Your task to perform on an android device: Search for lg ultragear on amazon.com, select the first entry, add it to the cart, then select checkout. Image 0: 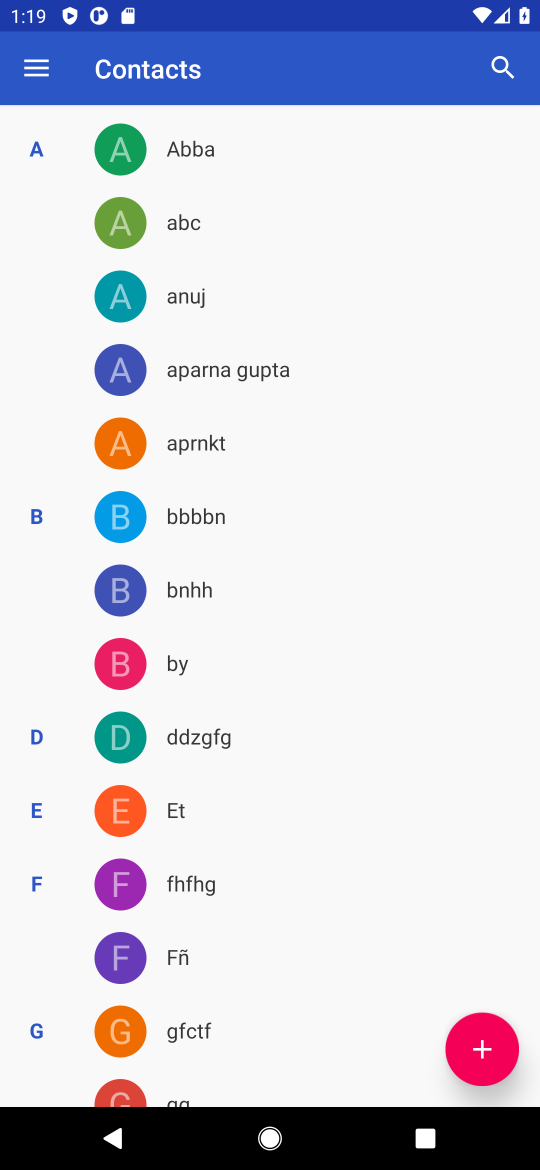
Step 0: press home button
Your task to perform on an android device: Search for lg ultragear on amazon.com, select the first entry, add it to the cart, then select checkout. Image 1: 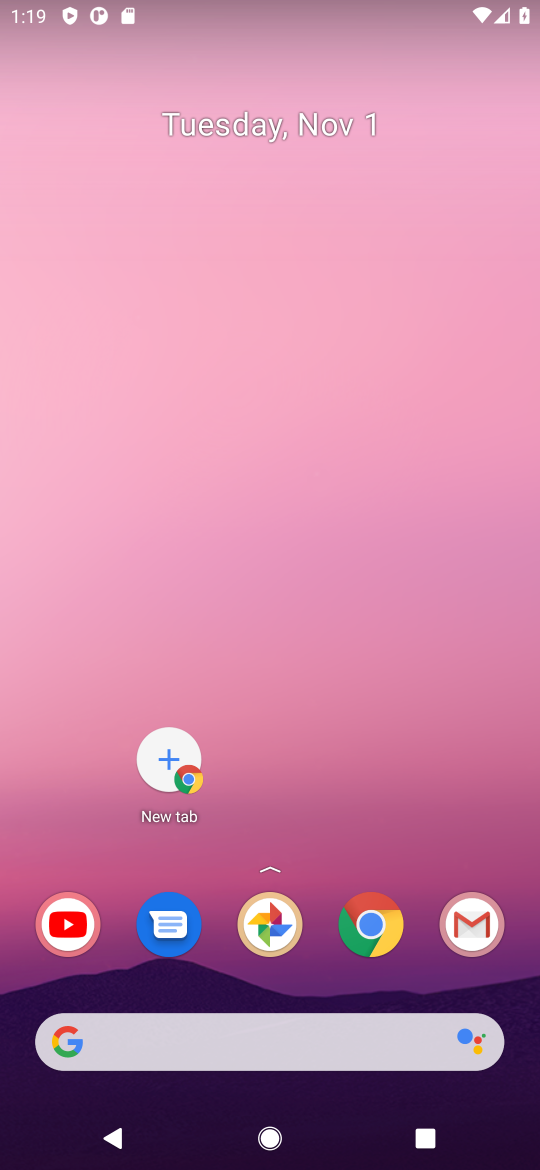
Step 1: click (377, 937)
Your task to perform on an android device: Search for lg ultragear on amazon.com, select the first entry, add it to the cart, then select checkout. Image 2: 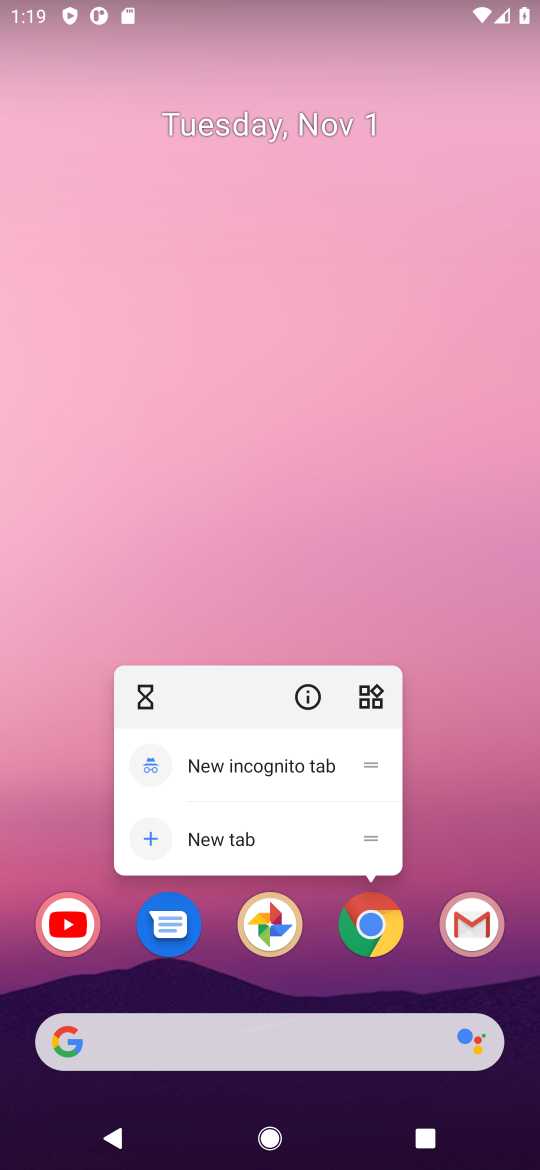
Step 2: click (370, 921)
Your task to perform on an android device: Search for lg ultragear on amazon.com, select the first entry, add it to the cart, then select checkout. Image 3: 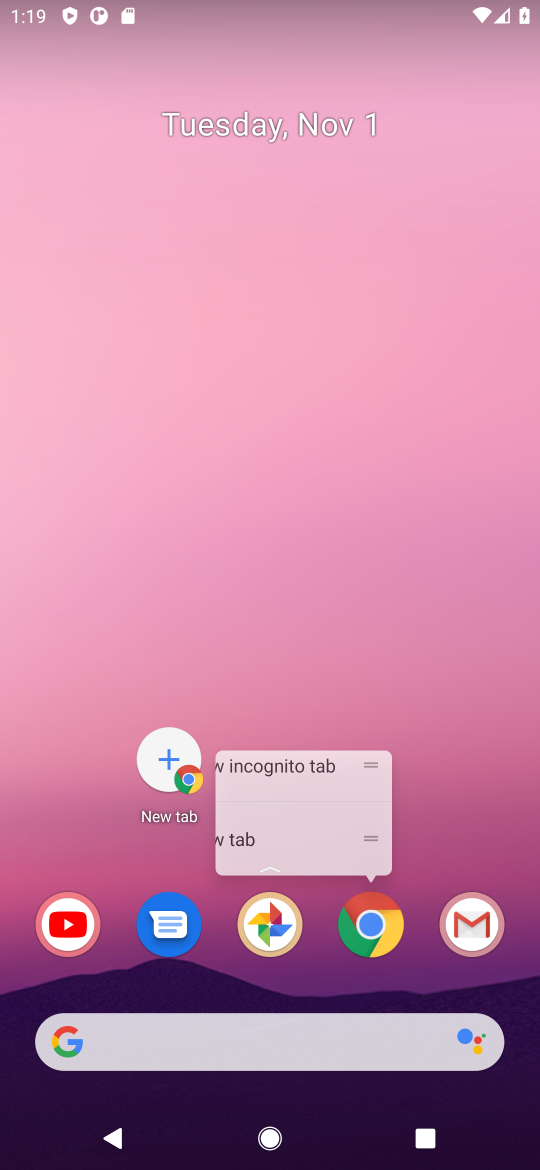
Step 3: click (370, 921)
Your task to perform on an android device: Search for lg ultragear on amazon.com, select the first entry, add it to the cart, then select checkout. Image 4: 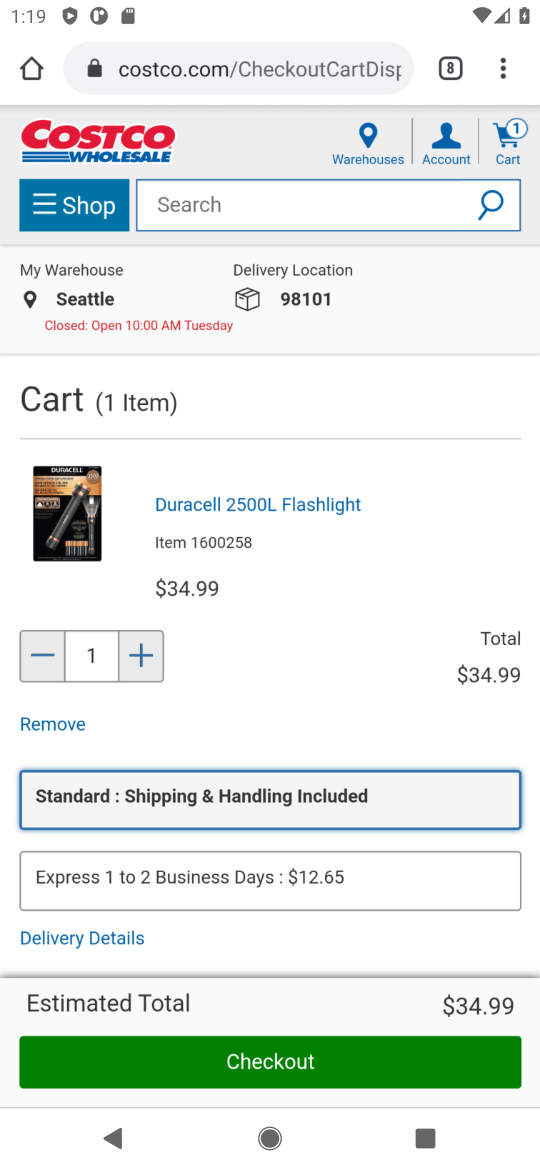
Step 4: click (370, 920)
Your task to perform on an android device: Search for lg ultragear on amazon.com, select the first entry, add it to the cart, then select checkout. Image 5: 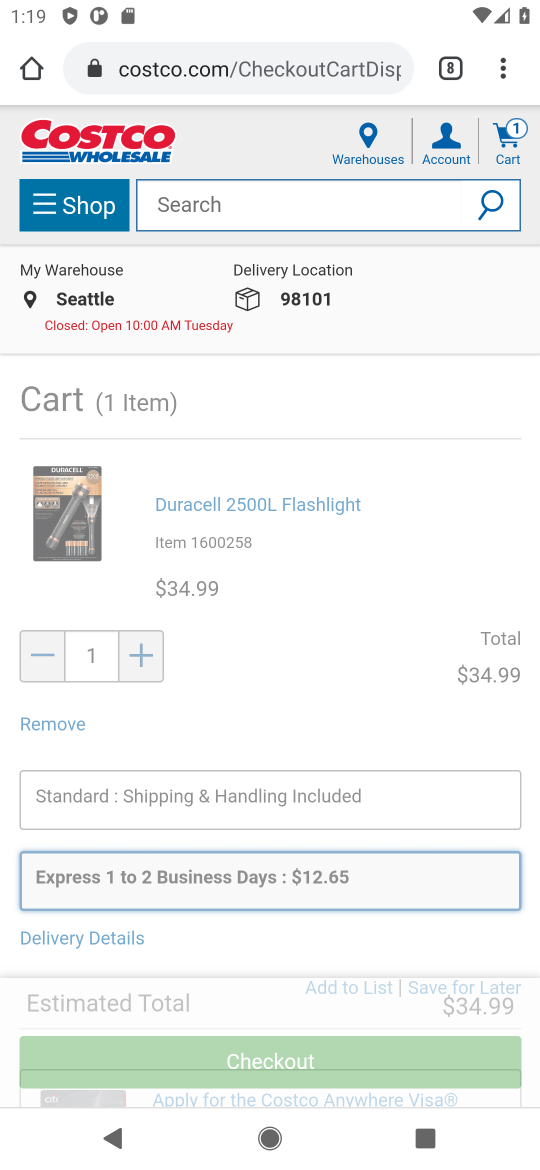
Step 5: click (134, 72)
Your task to perform on an android device: Search for lg ultragear on amazon.com, select the first entry, add it to the cart, then select checkout. Image 6: 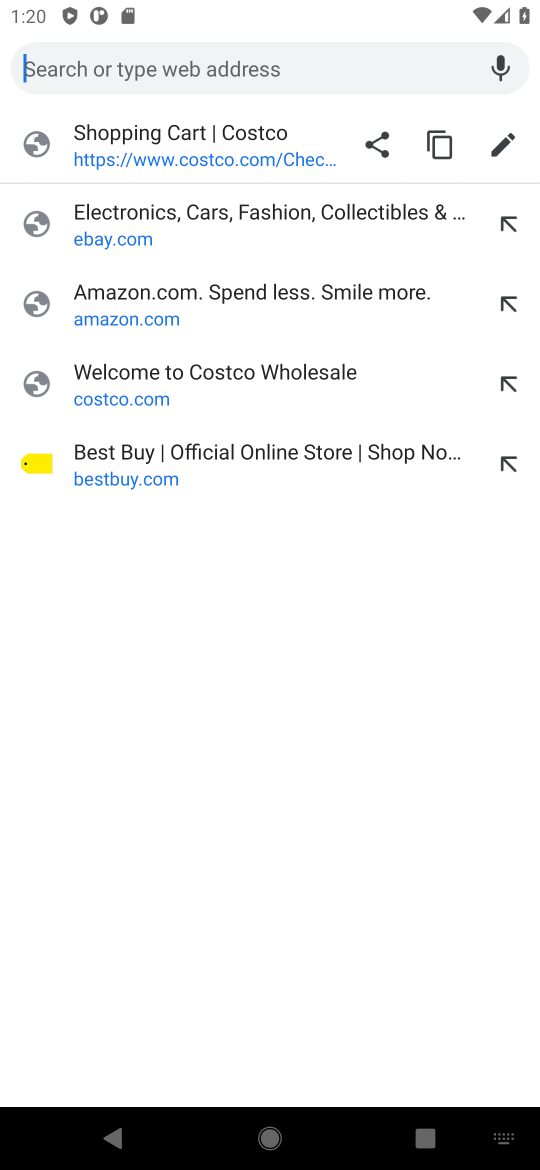
Step 6: type "amazon.com"
Your task to perform on an android device: Search for lg ultragear on amazon.com, select the first entry, add it to the cart, then select checkout. Image 7: 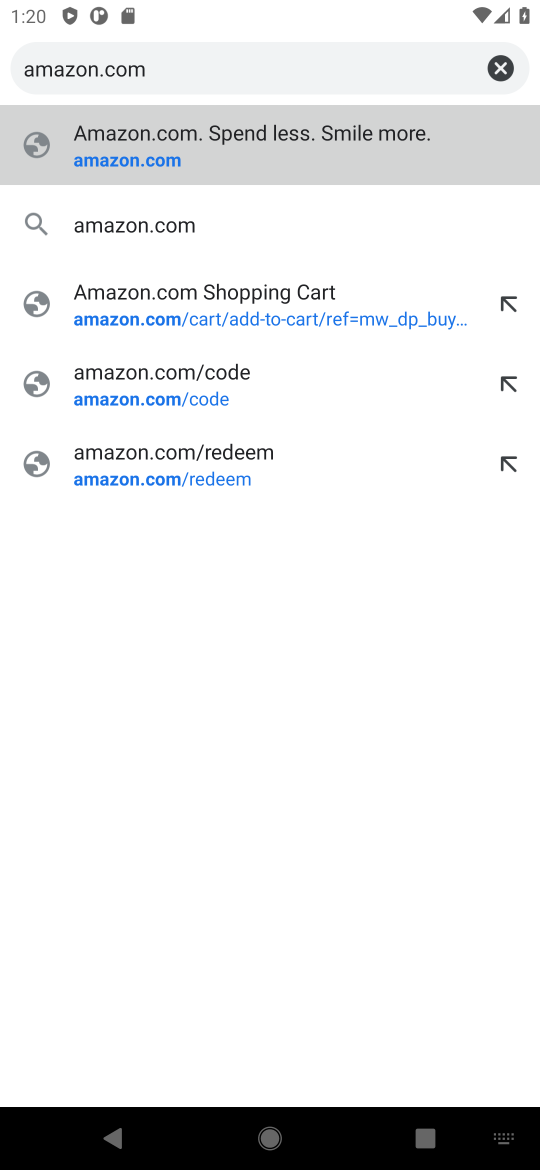
Step 7: type ""
Your task to perform on an android device: Search for lg ultragear on amazon.com, select the first entry, add it to the cart, then select checkout. Image 8: 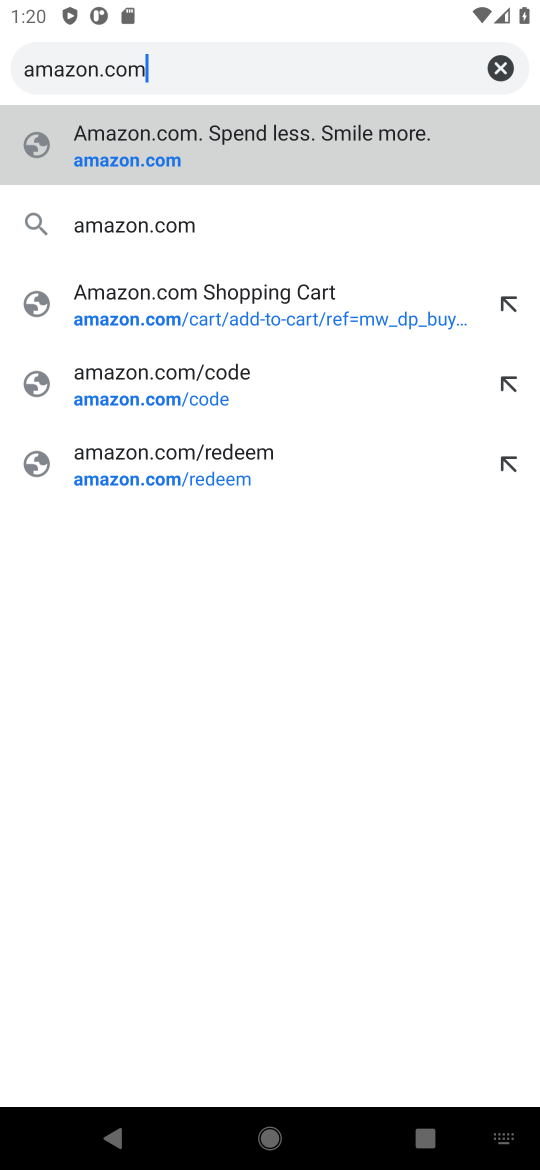
Step 8: click (82, 308)
Your task to perform on an android device: Search for lg ultragear on amazon.com, select the first entry, add it to the cart, then select checkout. Image 9: 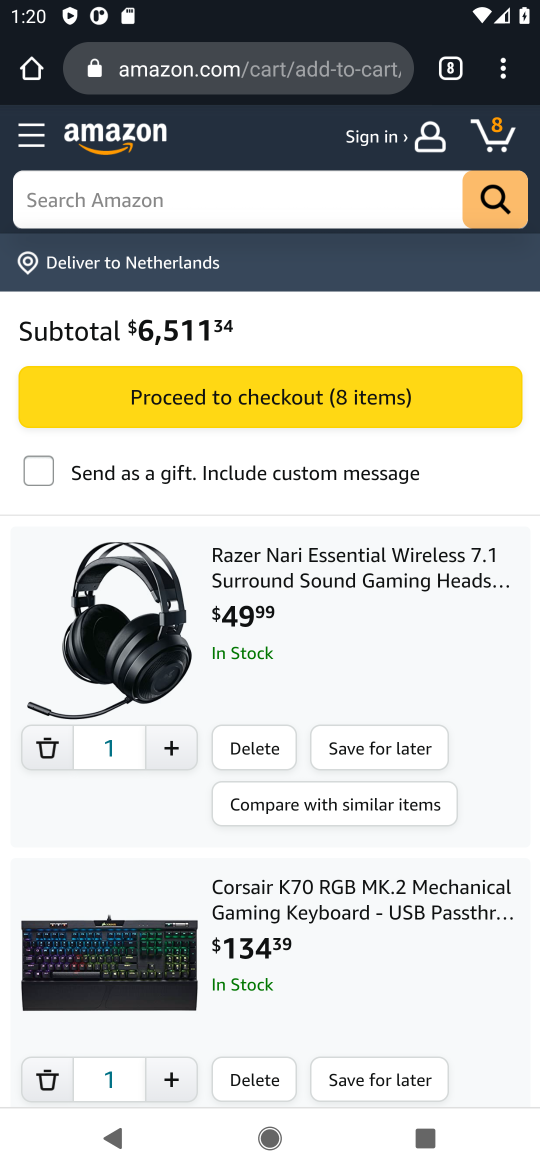
Step 9: click (136, 189)
Your task to perform on an android device: Search for lg ultragear on amazon.com, select the first entry, add it to the cart, then select checkout. Image 10: 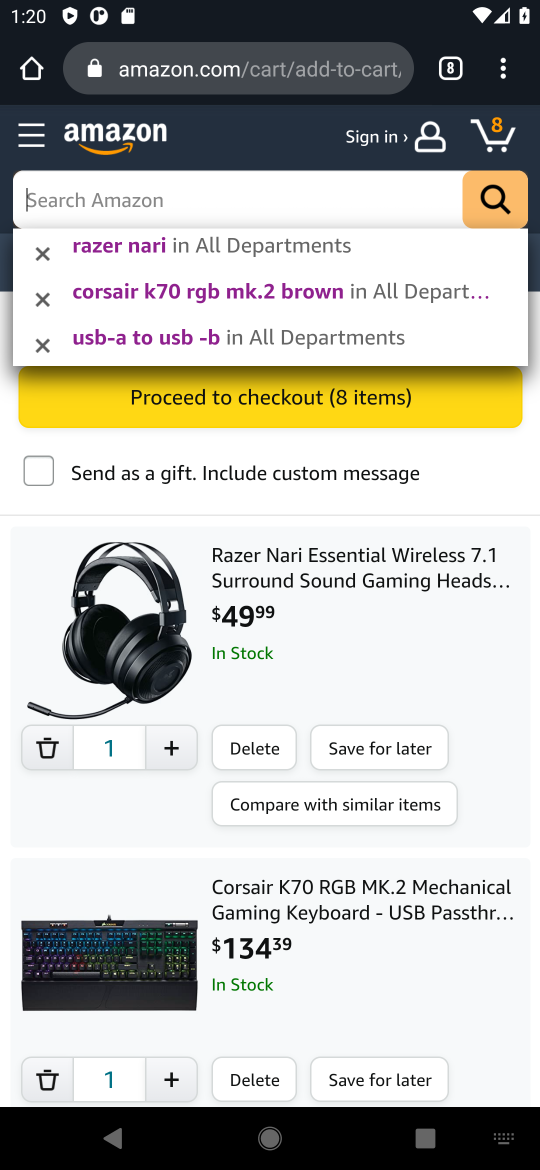
Step 10: type "lg ultragear "
Your task to perform on an android device: Search for lg ultragear on amazon.com, select the first entry, add it to the cart, then select checkout. Image 11: 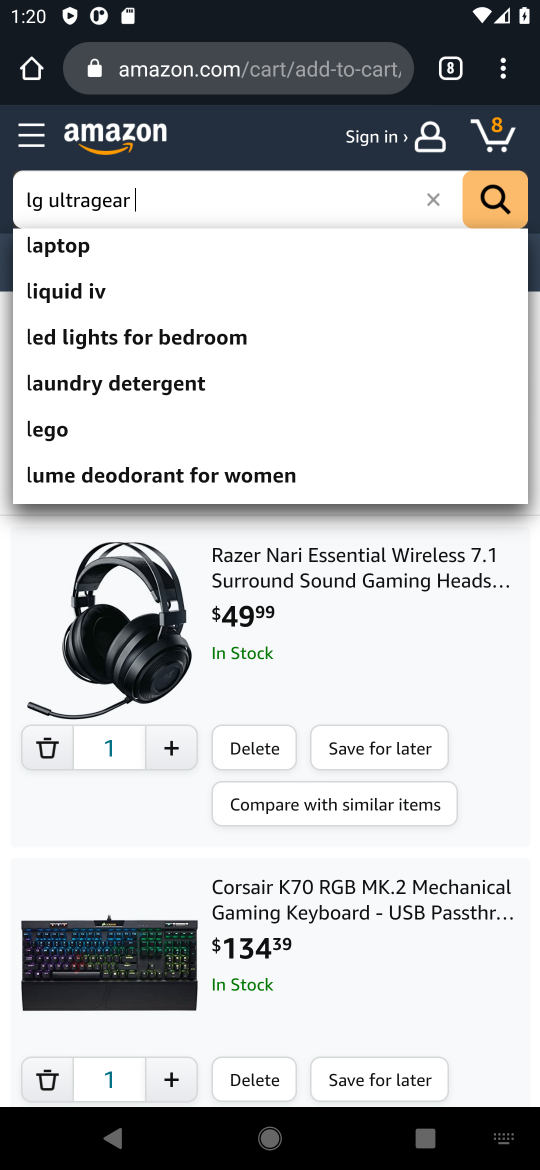
Step 11: type ""
Your task to perform on an android device: Search for lg ultragear on amazon.com, select the first entry, add it to the cart, then select checkout. Image 12: 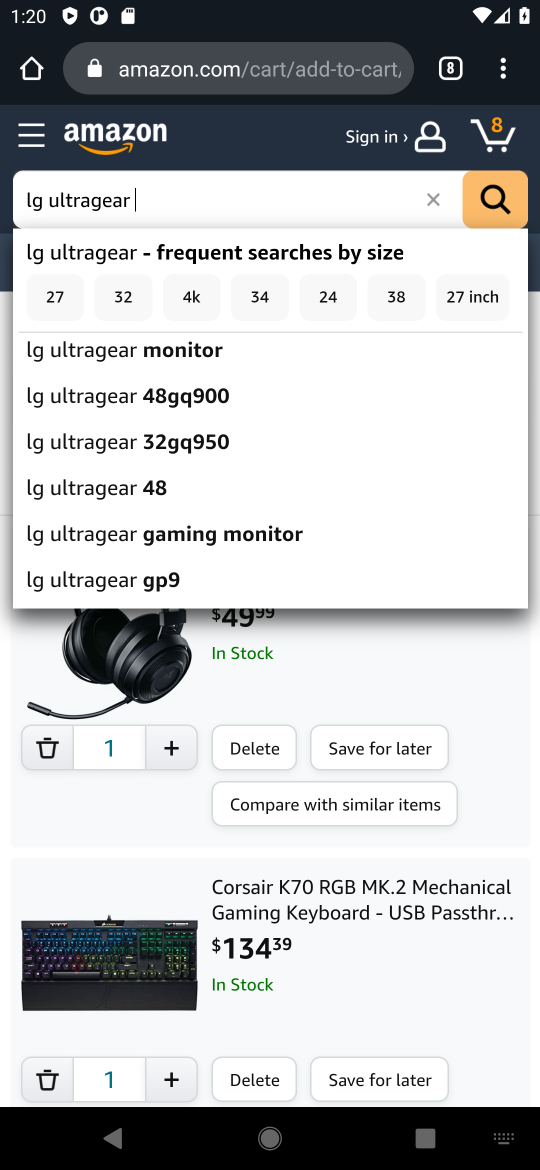
Step 12: click (82, 491)
Your task to perform on an android device: Search for lg ultragear on amazon.com, select the first entry, add it to the cart, then select checkout. Image 13: 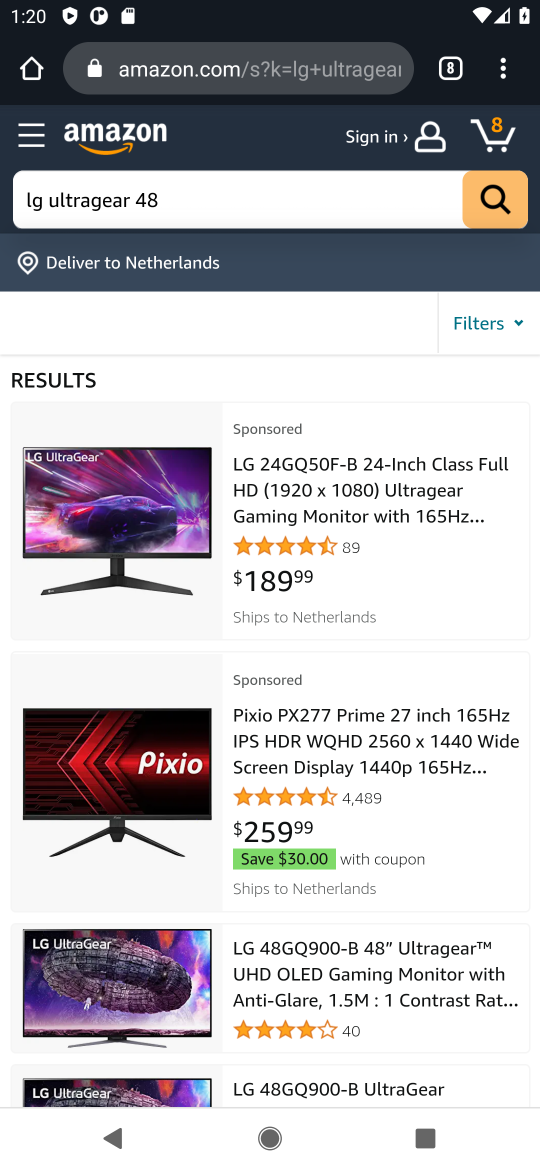
Step 13: click (190, 519)
Your task to perform on an android device: Search for lg ultragear on amazon.com, select the first entry, add it to the cart, then select checkout. Image 14: 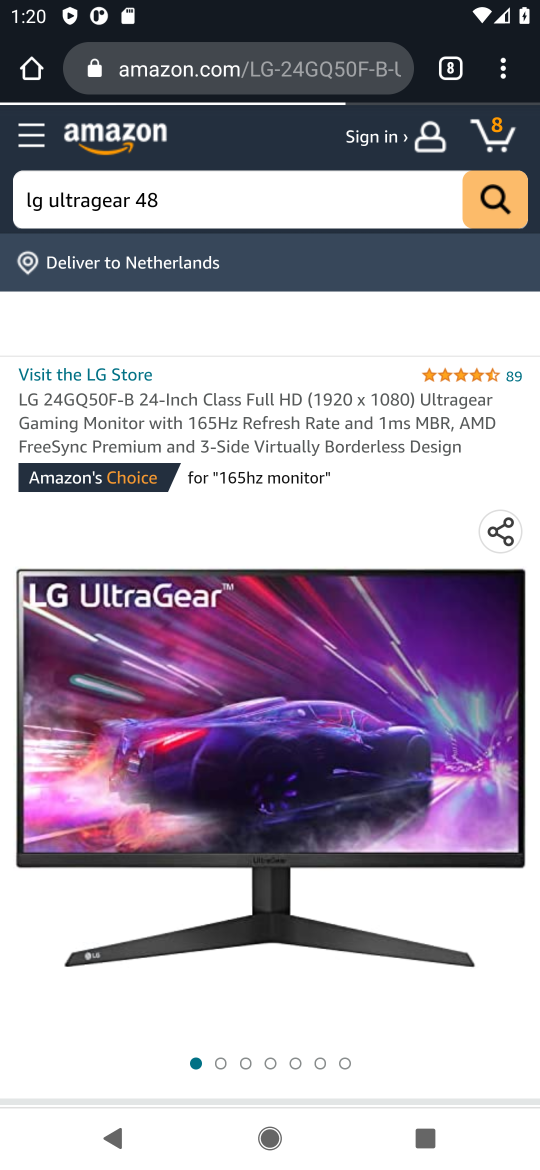
Step 14: drag from (250, 925) to (245, 473)
Your task to perform on an android device: Search for lg ultragear on amazon.com, select the first entry, add it to the cart, then select checkout. Image 15: 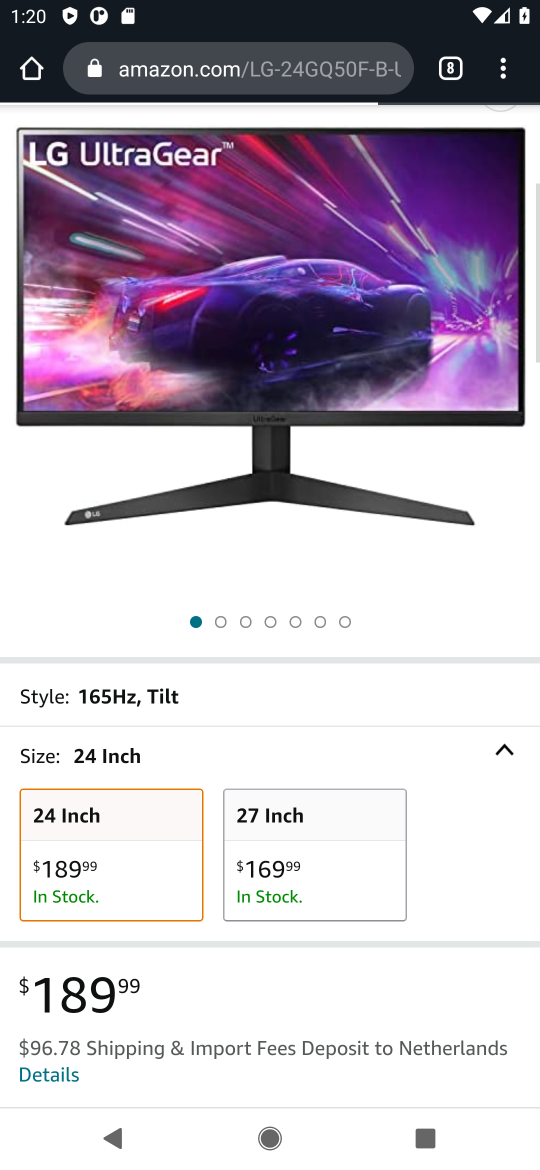
Step 15: drag from (310, 979) to (281, 684)
Your task to perform on an android device: Search for lg ultragear on amazon.com, select the first entry, add it to the cart, then select checkout. Image 16: 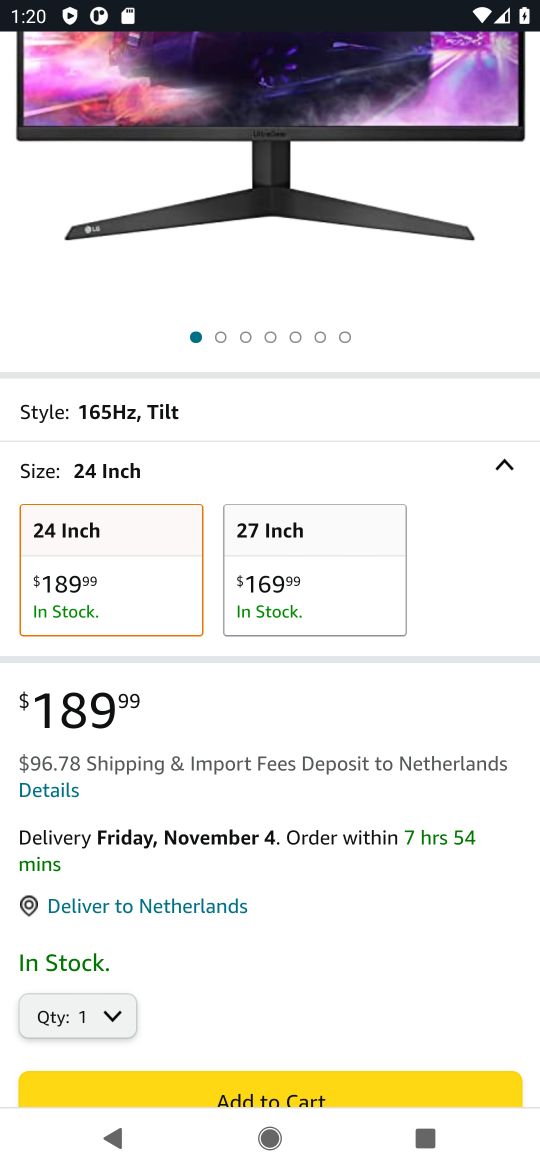
Step 16: drag from (237, 906) to (237, 730)
Your task to perform on an android device: Search for lg ultragear on amazon.com, select the first entry, add it to the cart, then select checkout. Image 17: 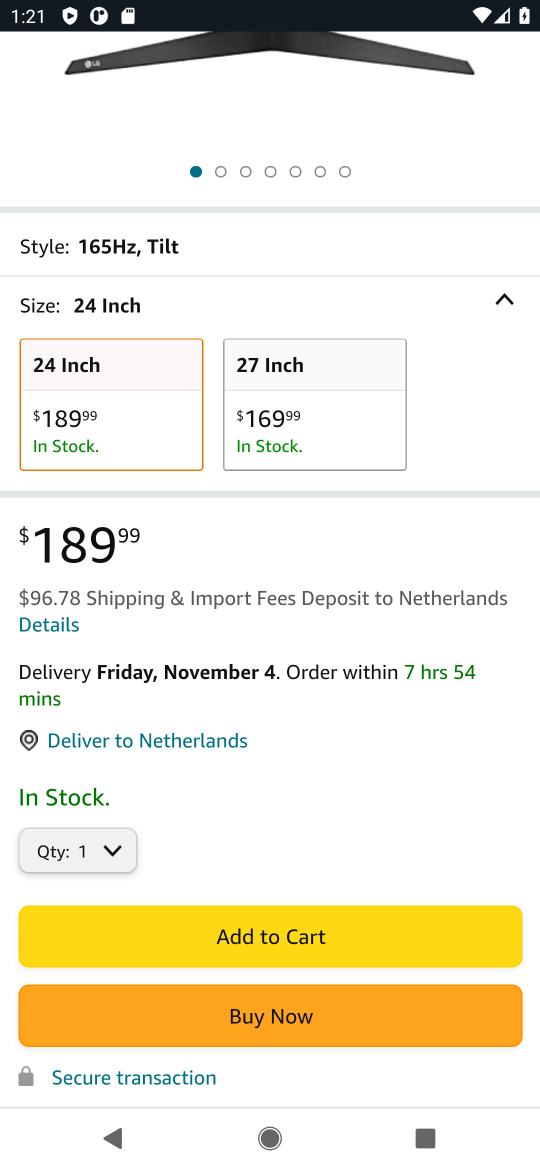
Step 17: click (282, 925)
Your task to perform on an android device: Search for lg ultragear on amazon.com, select the first entry, add it to the cart, then select checkout. Image 18: 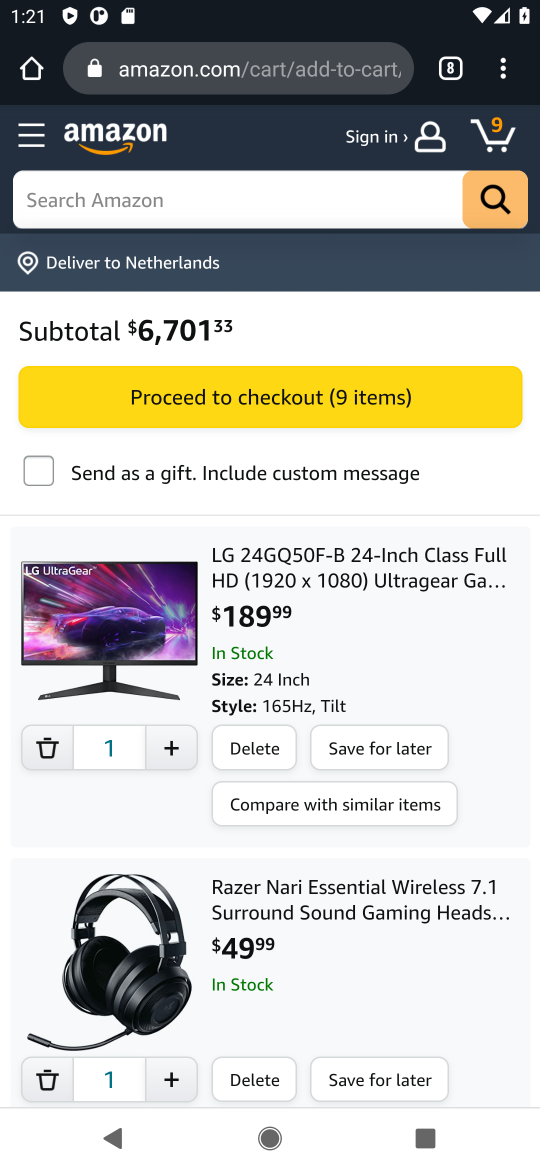
Step 18: drag from (307, 949) to (353, 704)
Your task to perform on an android device: Search for lg ultragear on amazon.com, select the first entry, add it to the cart, then select checkout. Image 19: 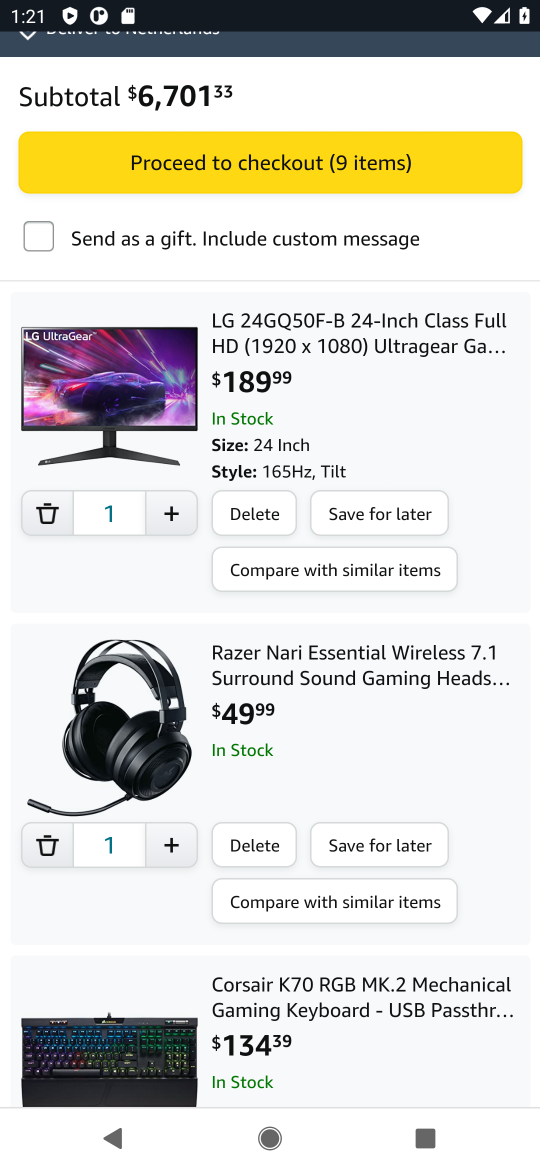
Step 19: click (146, 404)
Your task to perform on an android device: Search for lg ultragear on amazon.com, select the first entry, add it to the cart, then select checkout. Image 20: 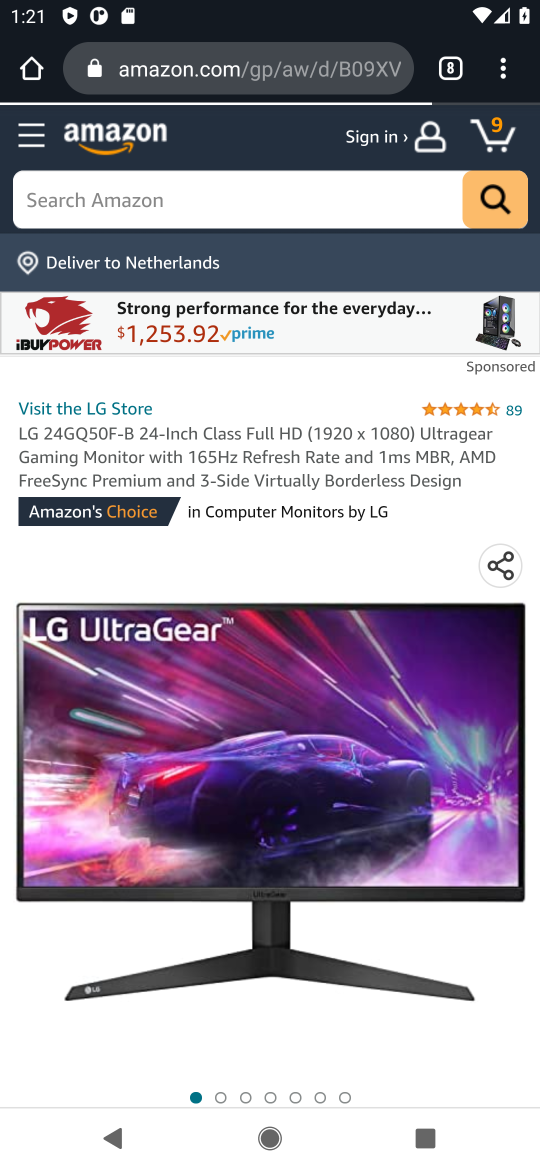
Step 20: drag from (258, 835) to (283, 493)
Your task to perform on an android device: Search for lg ultragear on amazon.com, select the first entry, add it to the cart, then select checkout. Image 21: 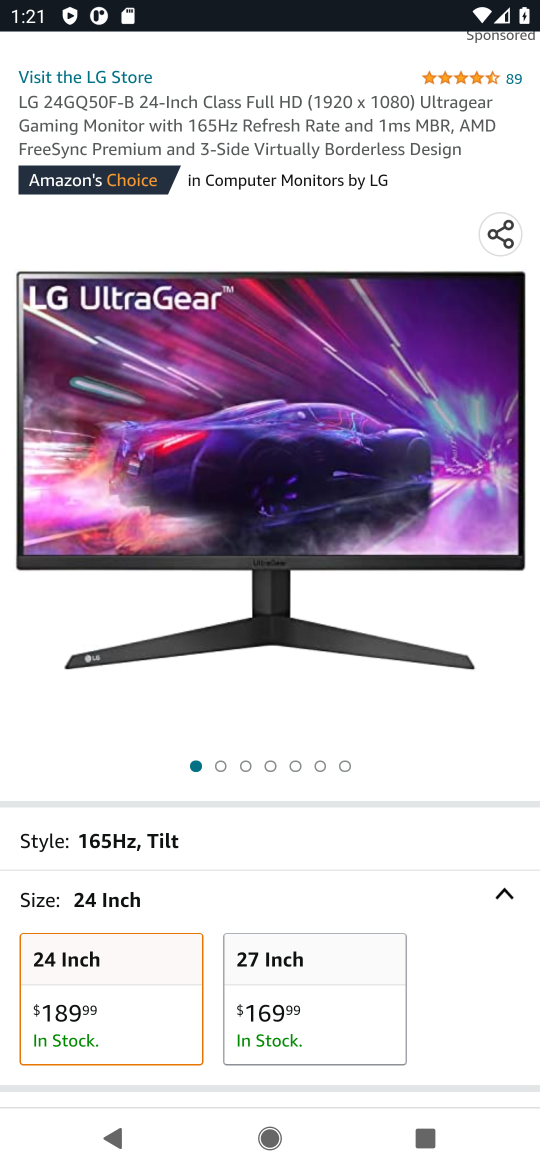
Step 21: drag from (213, 794) to (190, 279)
Your task to perform on an android device: Search for lg ultragear on amazon.com, select the first entry, add it to the cart, then select checkout. Image 22: 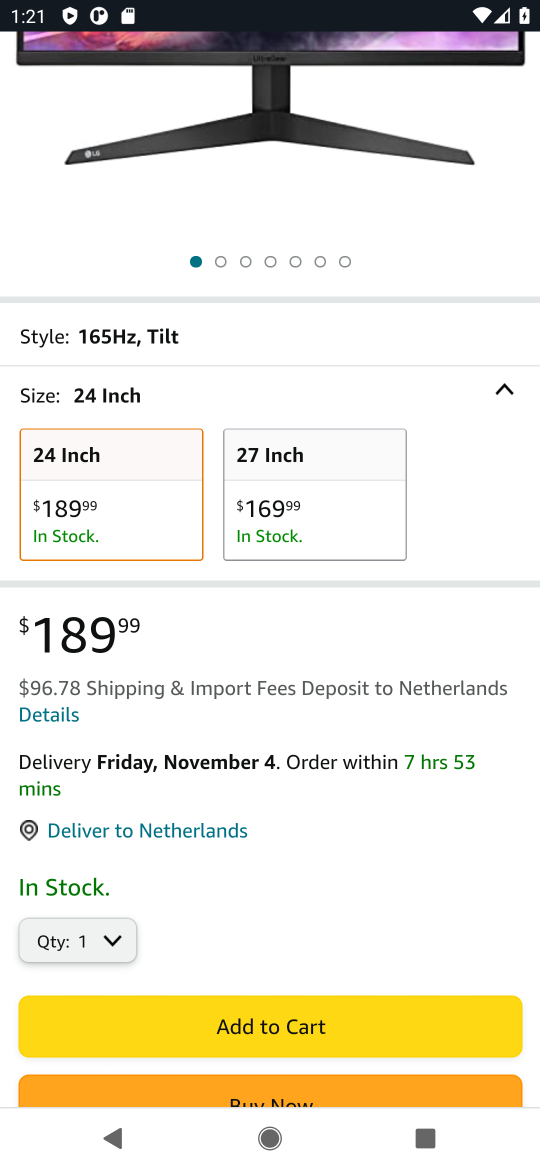
Step 22: click (326, 1023)
Your task to perform on an android device: Search for lg ultragear on amazon.com, select the first entry, add it to the cart, then select checkout. Image 23: 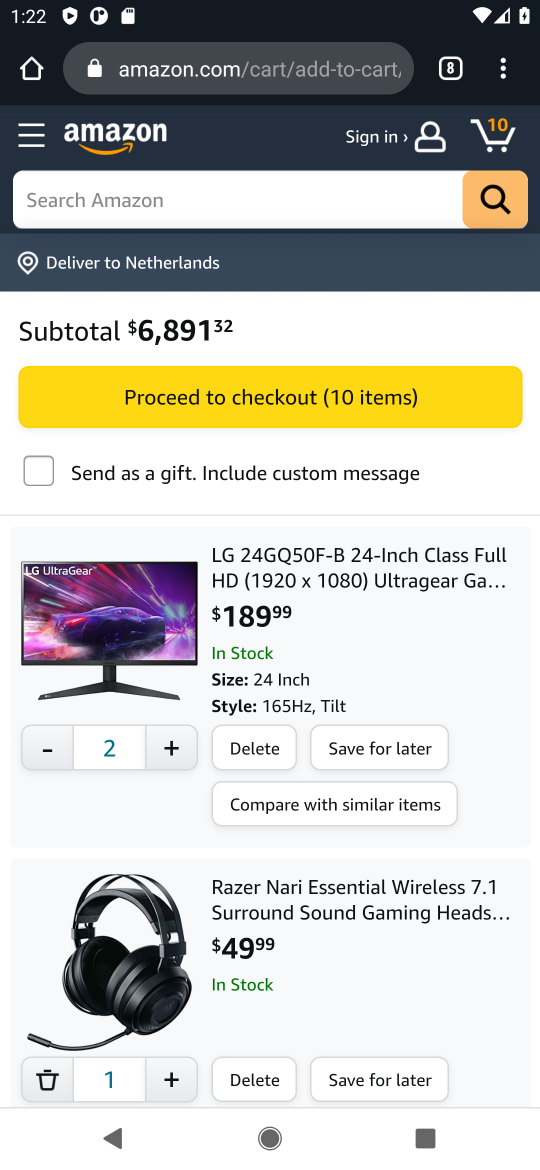
Step 23: drag from (329, 918) to (476, 179)
Your task to perform on an android device: Search for lg ultragear on amazon.com, select the first entry, add it to the cart, then select checkout. Image 24: 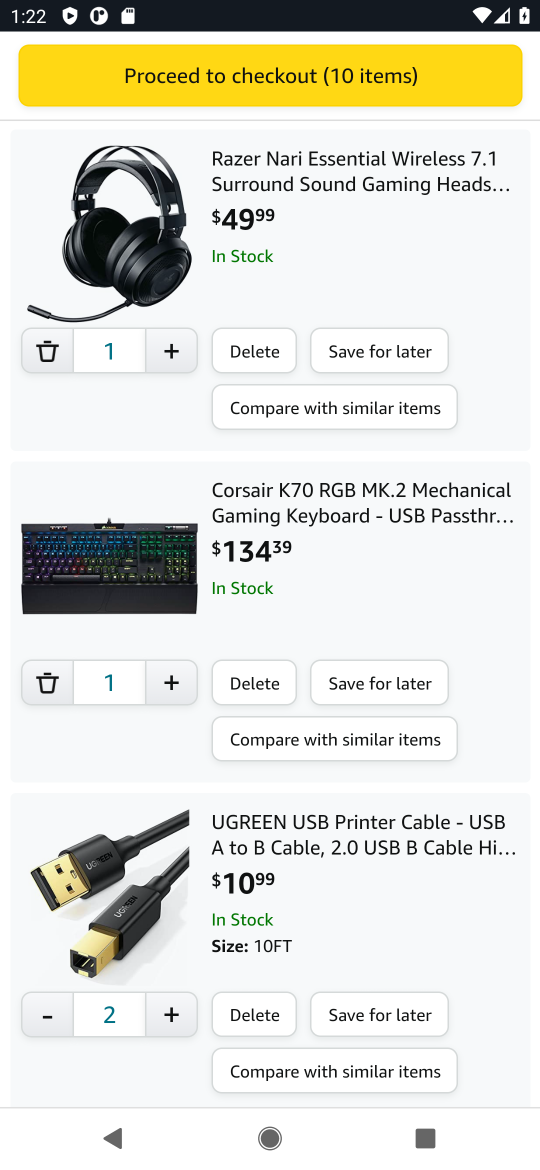
Step 24: drag from (342, 431) to (251, 1011)
Your task to perform on an android device: Search for lg ultragear on amazon.com, select the first entry, add it to the cart, then select checkout. Image 25: 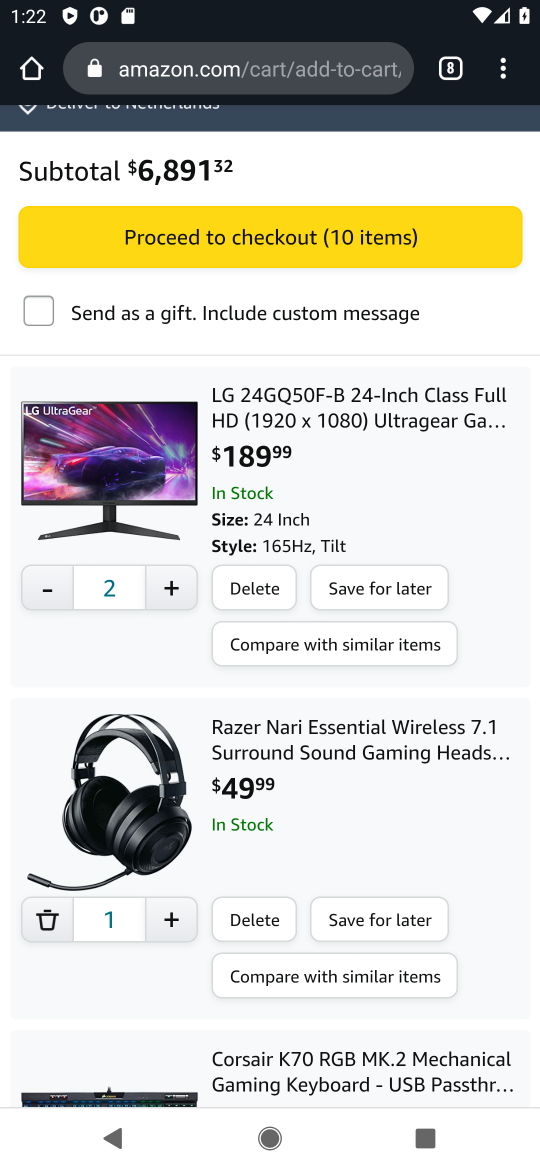
Step 25: click (172, 433)
Your task to perform on an android device: Search for lg ultragear on amazon.com, select the first entry, add it to the cart, then select checkout. Image 26: 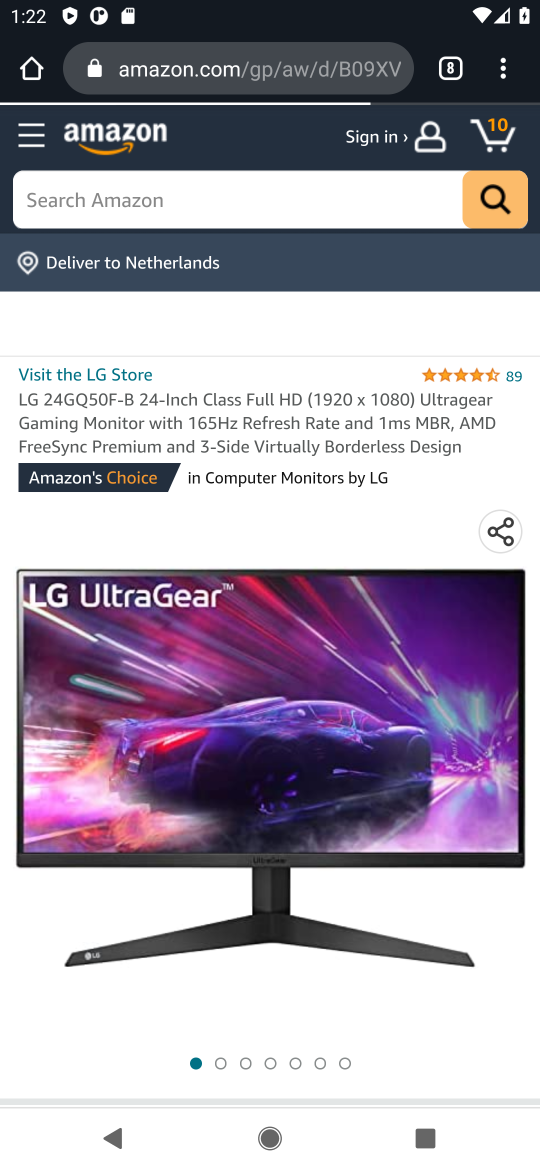
Step 26: drag from (201, 845) to (222, 478)
Your task to perform on an android device: Search for lg ultragear on amazon.com, select the first entry, add it to the cart, then select checkout. Image 27: 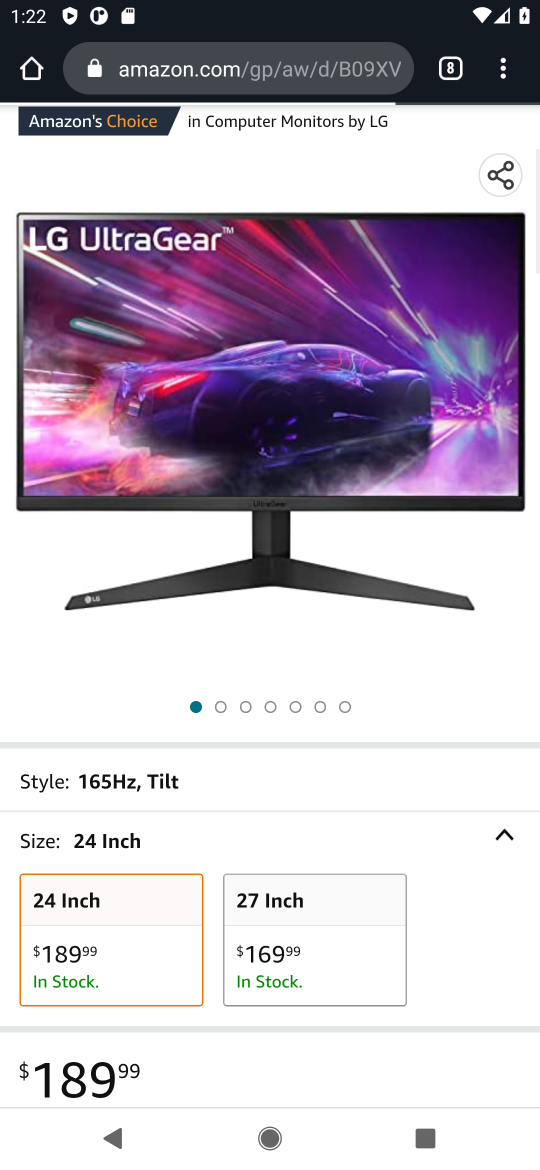
Step 27: drag from (227, 841) to (267, 481)
Your task to perform on an android device: Search for lg ultragear on amazon.com, select the first entry, add it to the cart, then select checkout. Image 28: 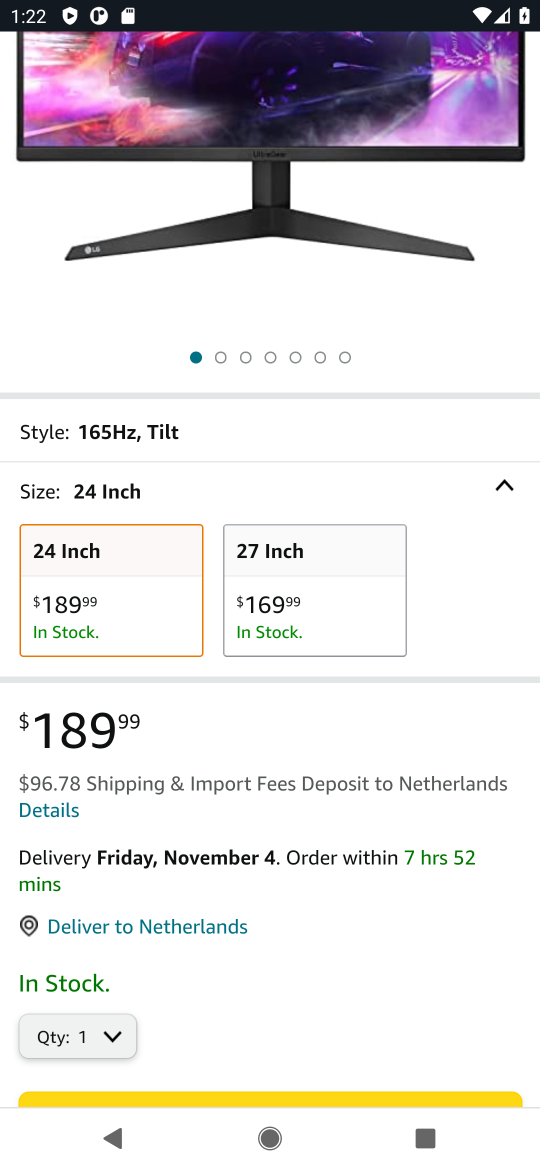
Step 28: drag from (319, 636) to (285, 356)
Your task to perform on an android device: Search for lg ultragear on amazon.com, select the first entry, add it to the cart, then select checkout. Image 29: 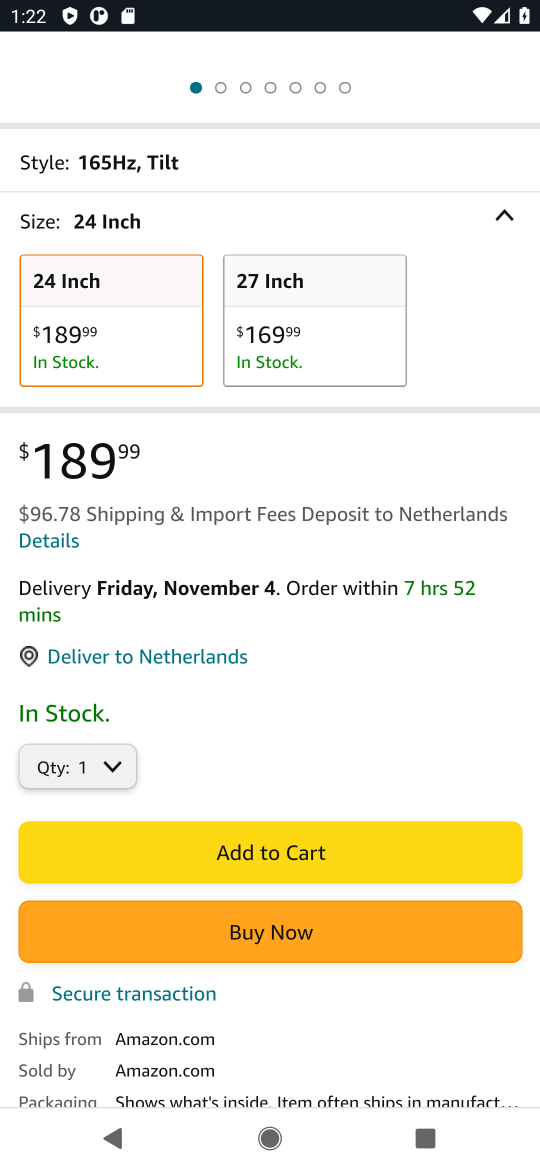
Step 29: click (209, 854)
Your task to perform on an android device: Search for lg ultragear on amazon.com, select the first entry, add it to the cart, then select checkout. Image 30: 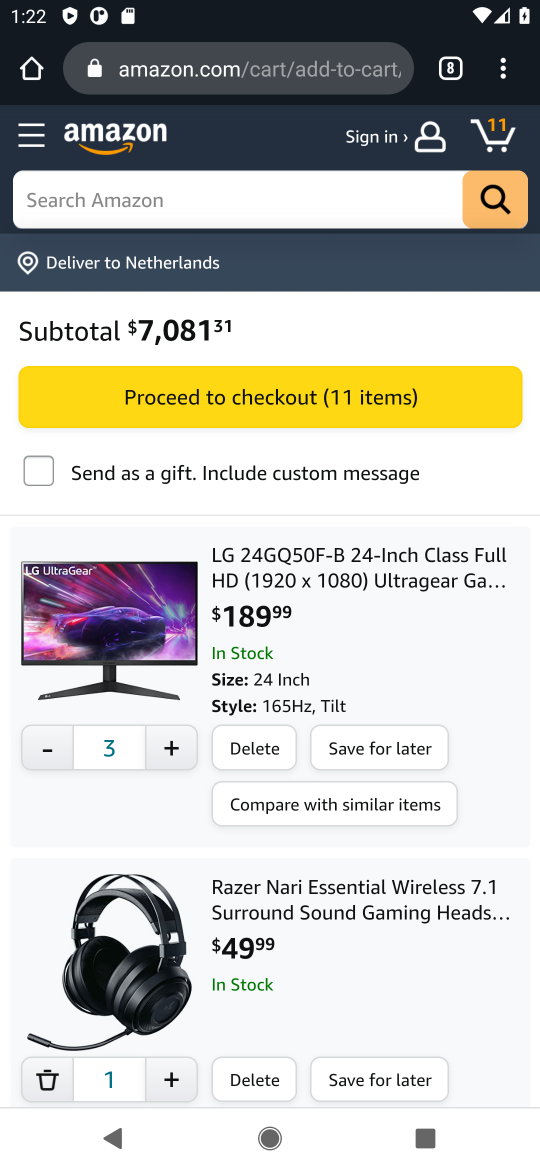
Step 30: click (264, 390)
Your task to perform on an android device: Search for lg ultragear on amazon.com, select the first entry, add it to the cart, then select checkout. Image 31: 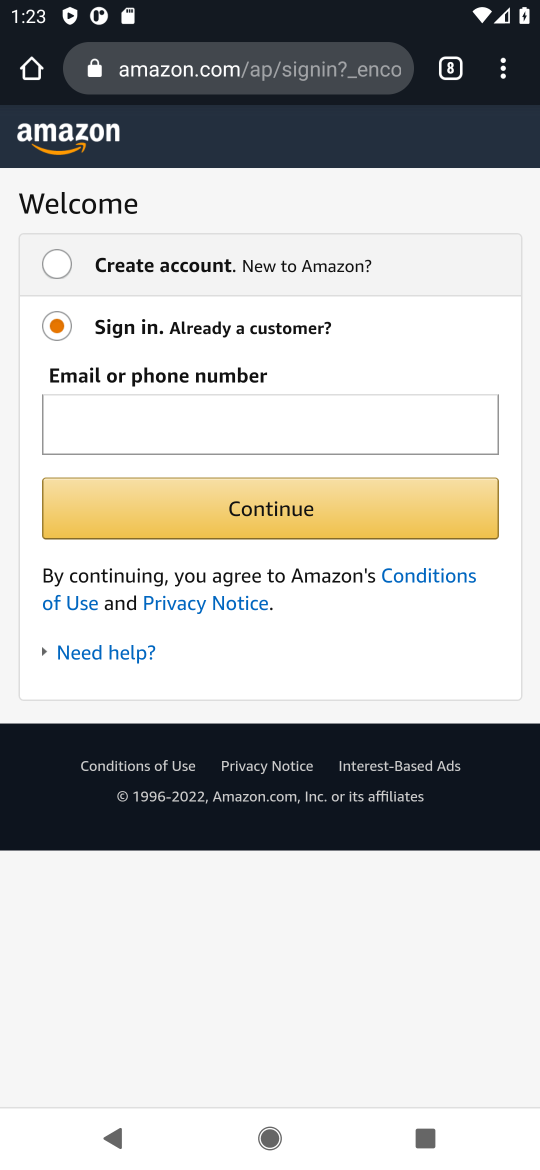
Step 31: task complete